Your task to perform on an android device: open sync settings in chrome Image 0: 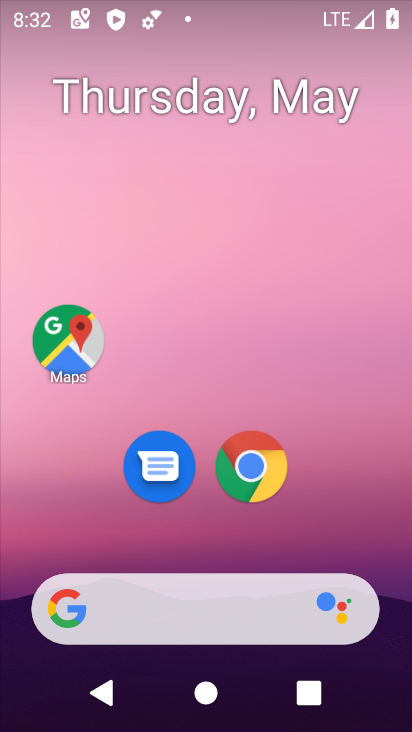
Step 0: click (257, 471)
Your task to perform on an android device: open sync settings in chrome Image 1: 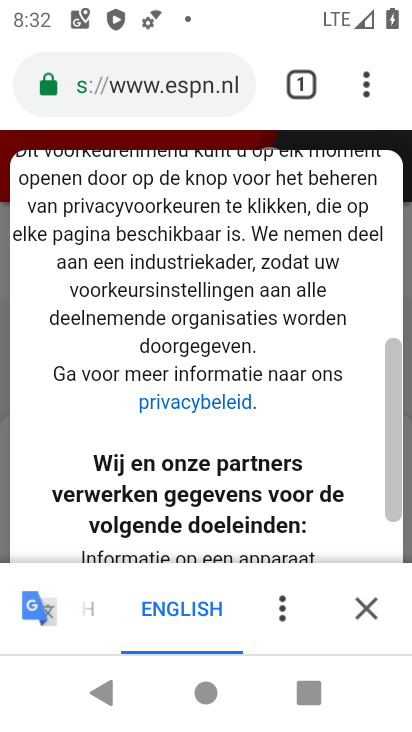
Step 1: click (368, 88)
Your task to perform on an android device: open sync settings in chrome Image 2: 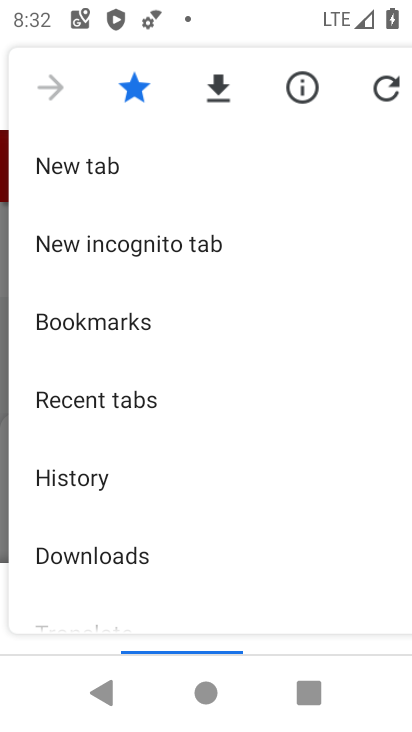
Step 2: drag from (179, 231) to (164, 58)
Your task to perform on an android device: open sync settings in chrome Image 3: 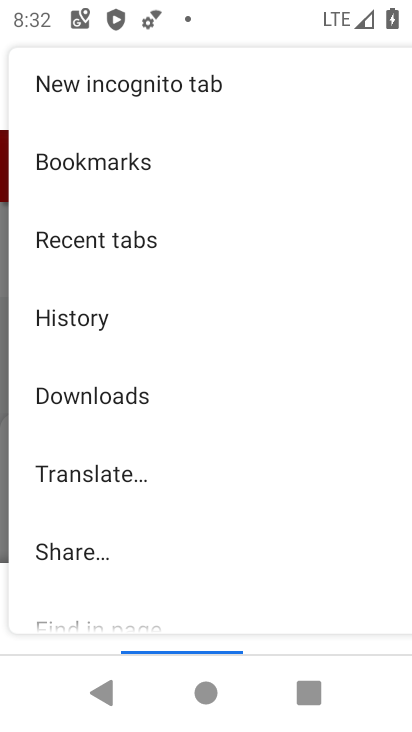
Step 3: drag from (263, 437) to (193, 58)
Your task to perform on an android device: open sync settings in chrome Image 4: 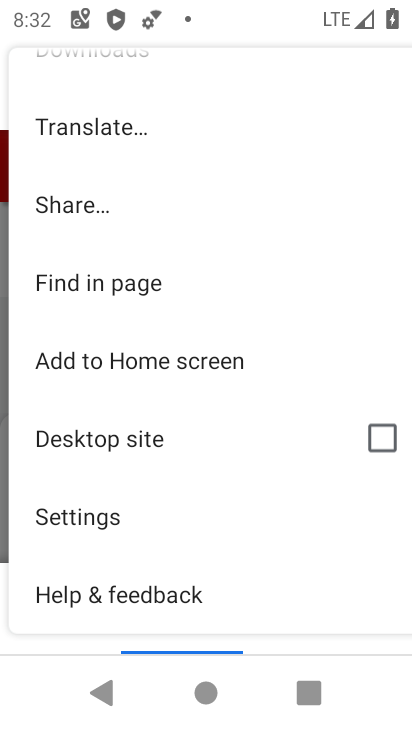
Step 4: click (63, 521)
Your task to perform on an android device: open sync settings in chrome Image 5: 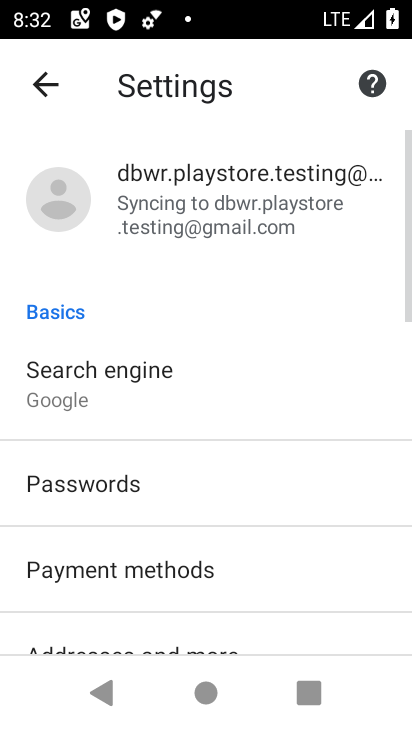
Step 5: click (158, 208)
Your task to perform on an android device: open sync settings in chrome Image 6: 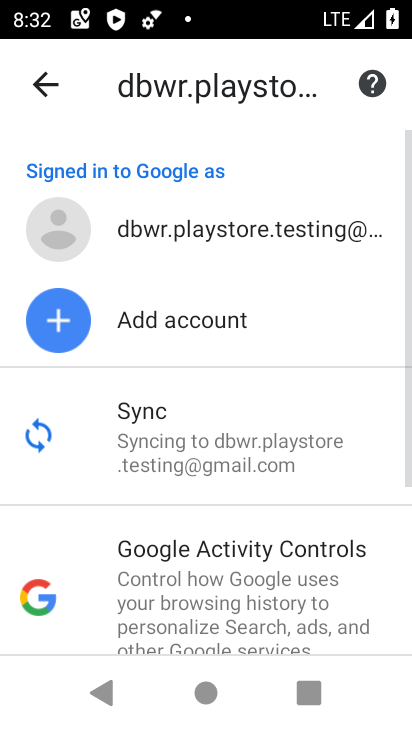
Step 6: click (169, 452)
Your task to perform on an android device: open sync settings in chrome Image 7: 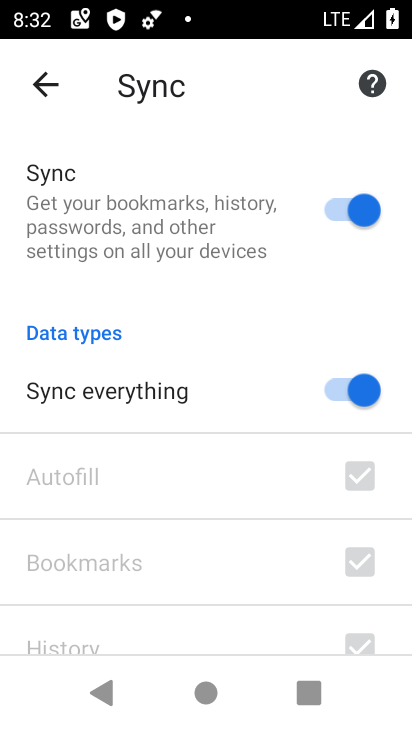
Step 7: task complete